Your task to perform on an android device: Open Google Chrome Image 0: 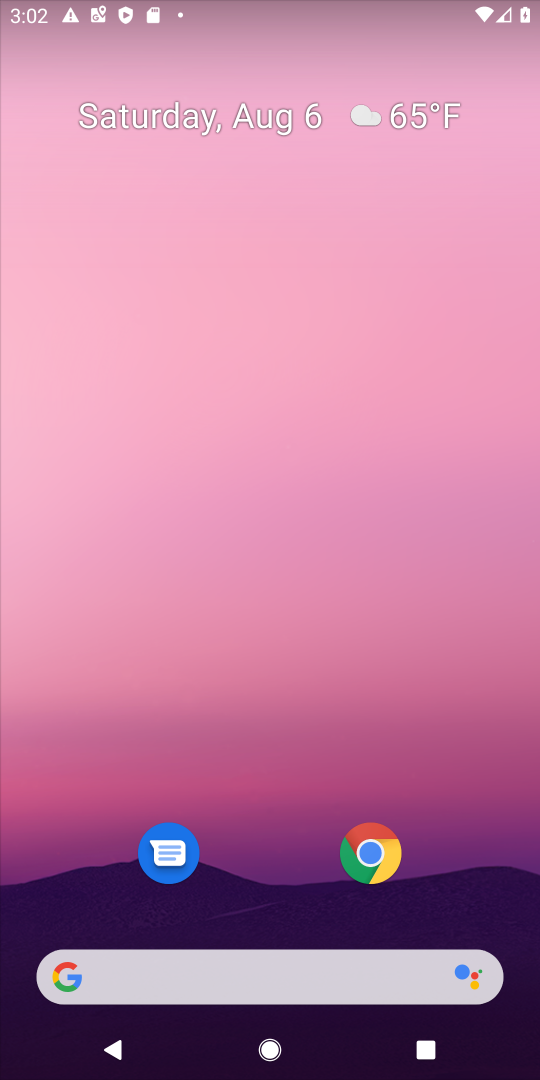
Step 0: click (349, 869)
Your task to perform on an android device: Open Google Chrome Image 1: 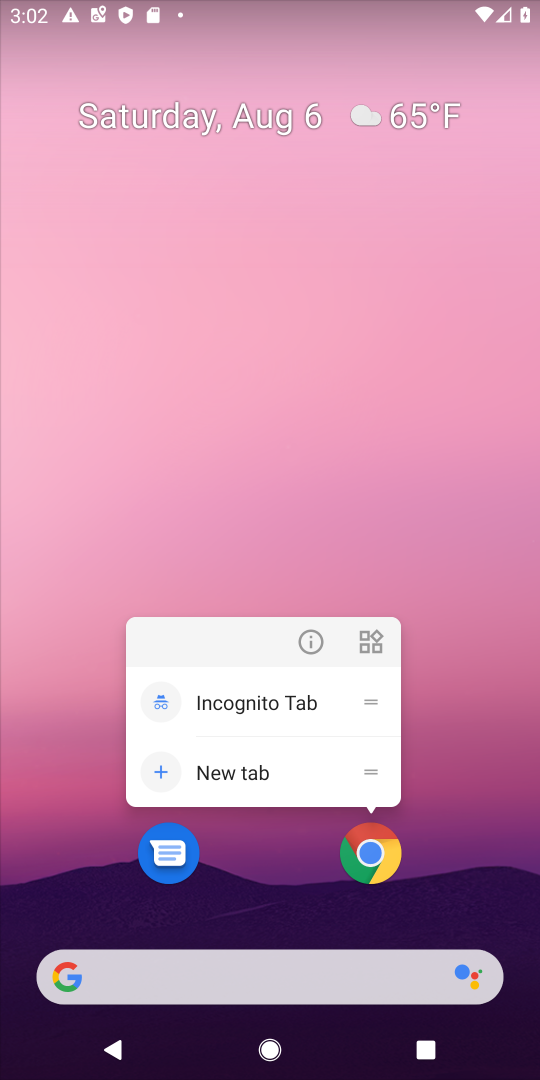
Step 1: click (378, 835)
Your task to perform on an android device: Open Google Chrome Image 2: 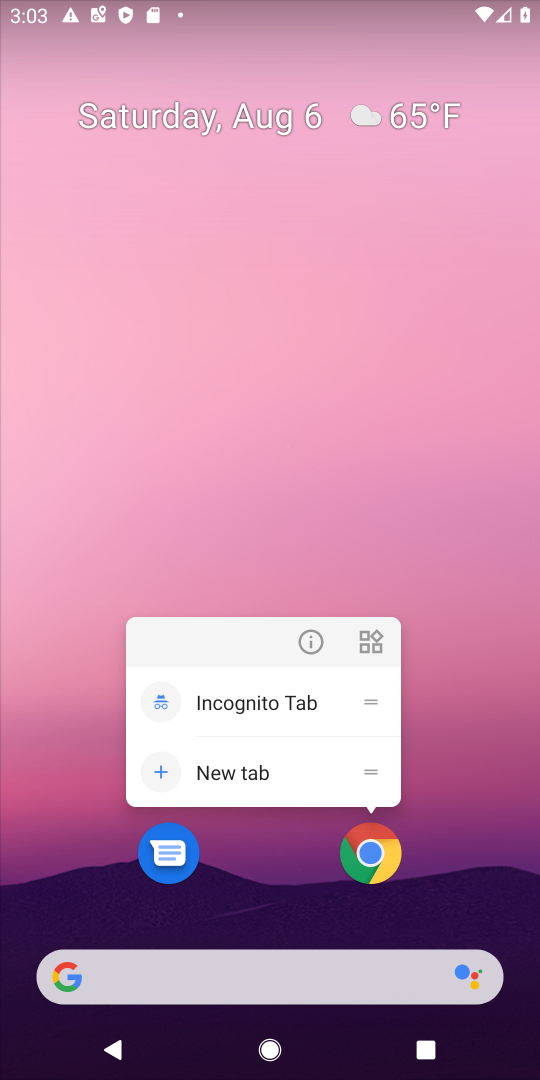
Step 2: click (361, 865)
Your task to perform on an android device: Open Google Chrome Image 3: 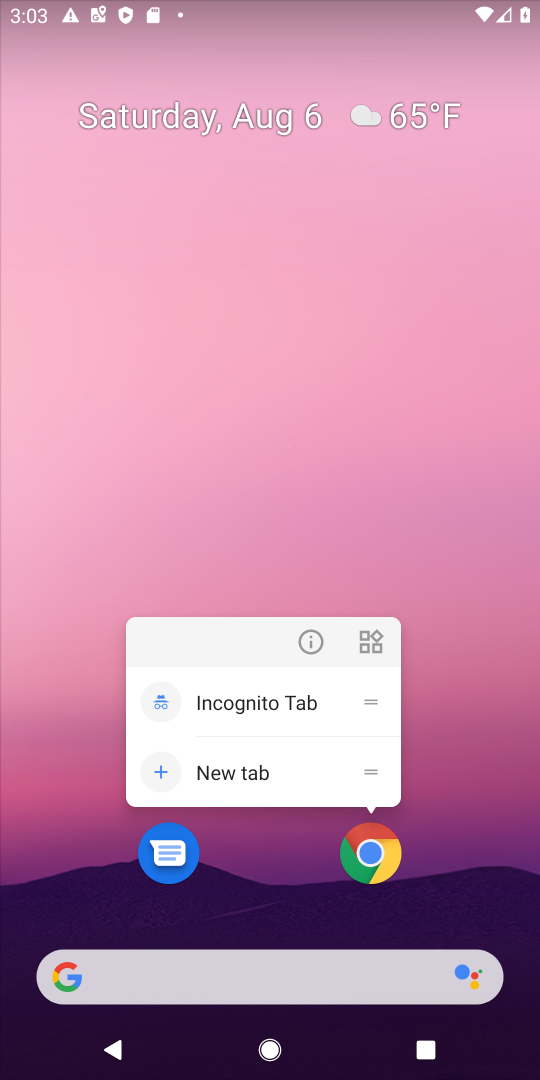
Step 3: click (375, 852)
Your task to perform on an android device: Open Google Chrome Image 4: 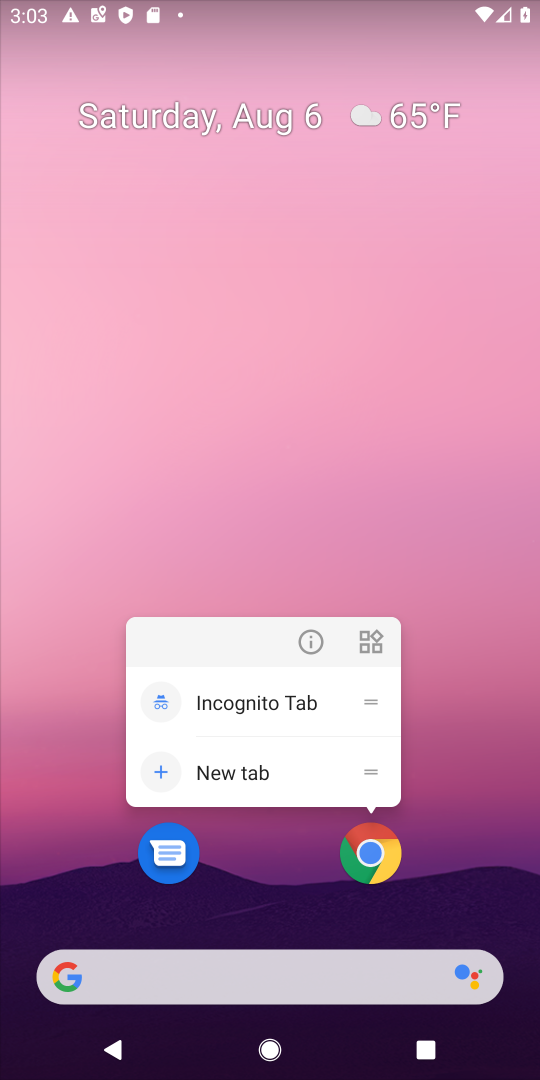
Step 4: click (371, 852)
Your task to perform on an android device: Open Google Chrome Image 5: 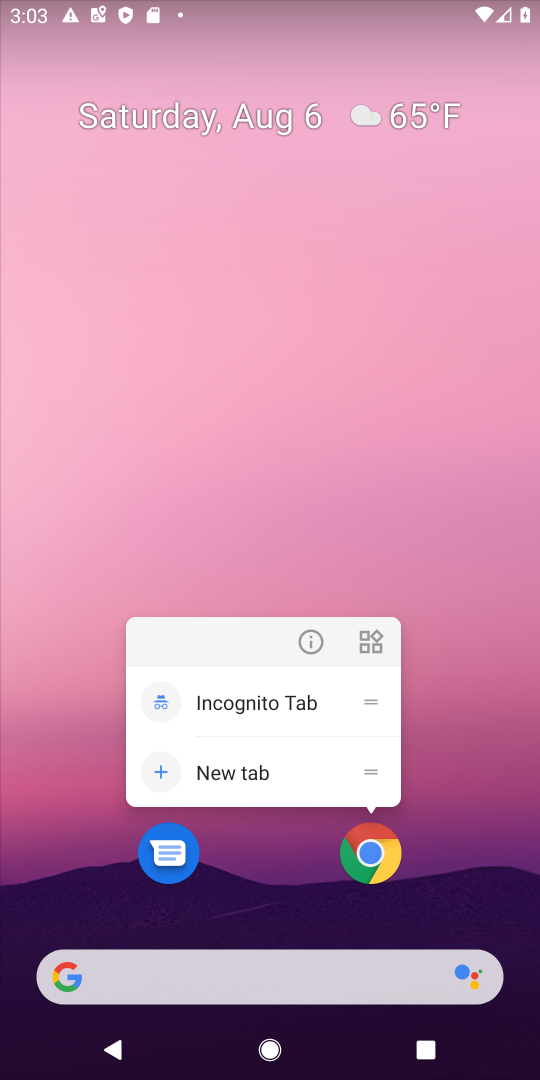
Step 5: click (369, 852)
Your task to perform on an android device: Open Google Chrome Image 6: 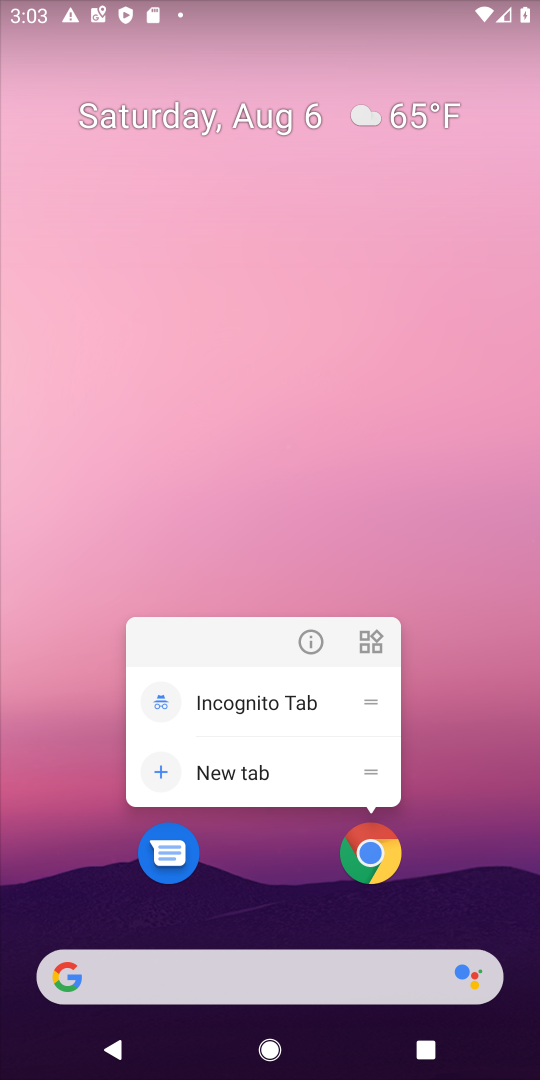
Step 6: click (369, 852)
Your task to perform on an android device: Open Google Chrome Image 7: 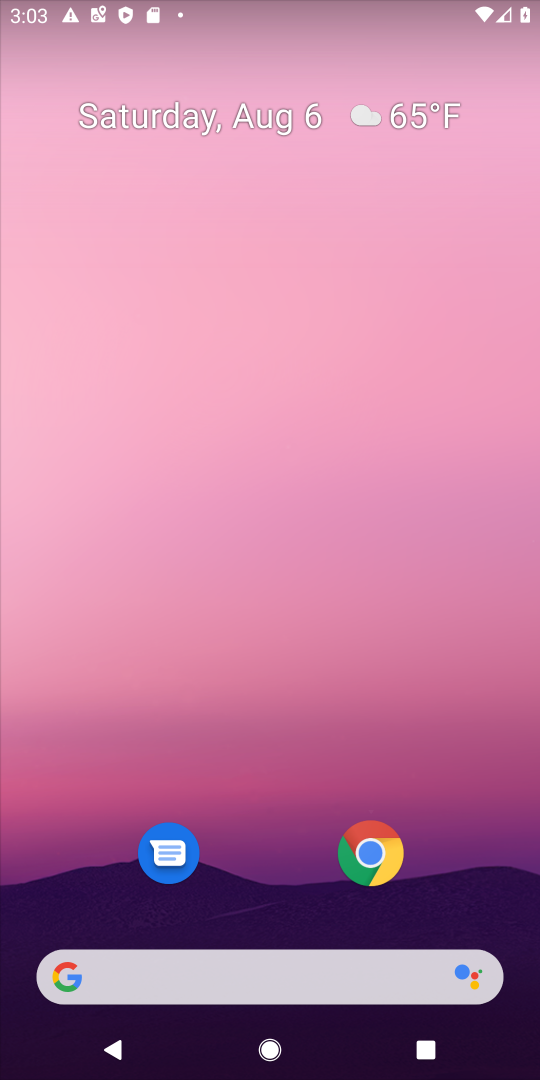
Step 7: click (369, 852)
Your task to perform on an android device: Open Google Chrome Image 8: 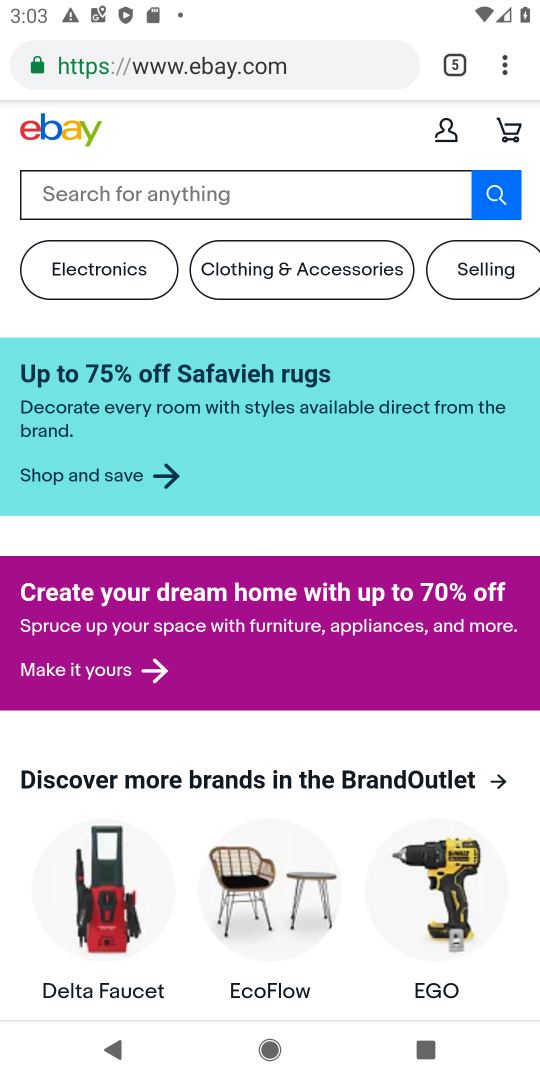
Step 8: task complete